Your task to perform on an android device: clear history in the chrome app Image 0: 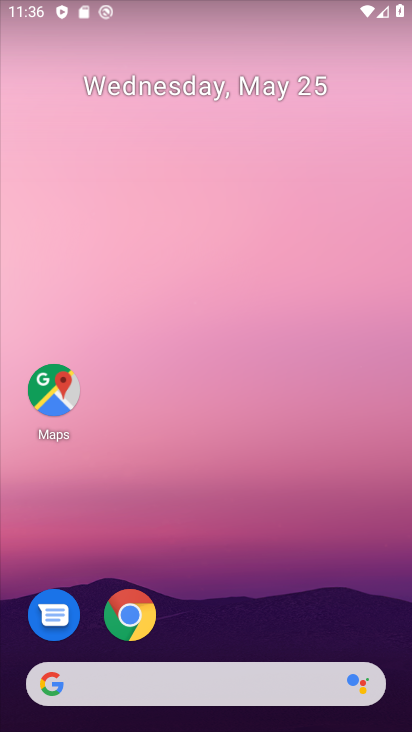
Step 0: drag from (340, 566) to (346, 45)
Your task to perform on an android device: clear history in the chrome app Image 1: 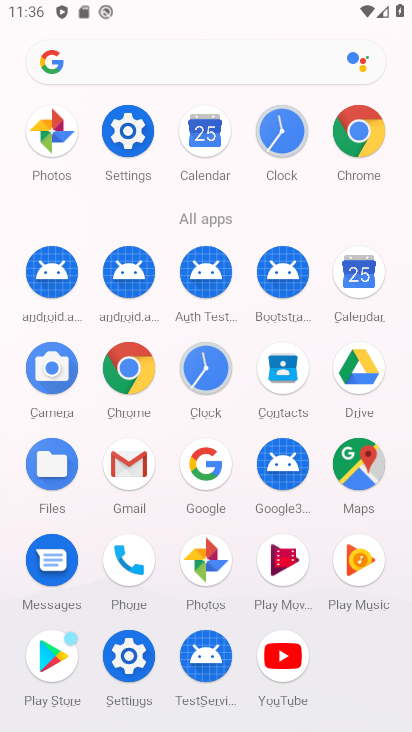
Step 1: click (364, 144)
Your task to perform on an android device: clear history in the chrome app Image 2: 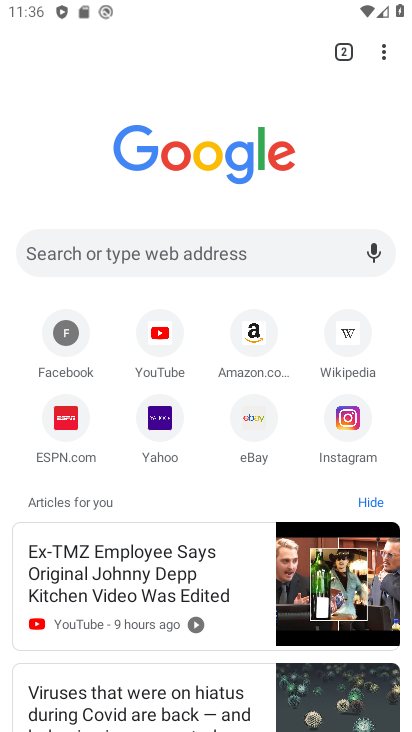
Step 2: click (379, 40)
Your task to perform on an android device: clear history in the chrome app Image 3: 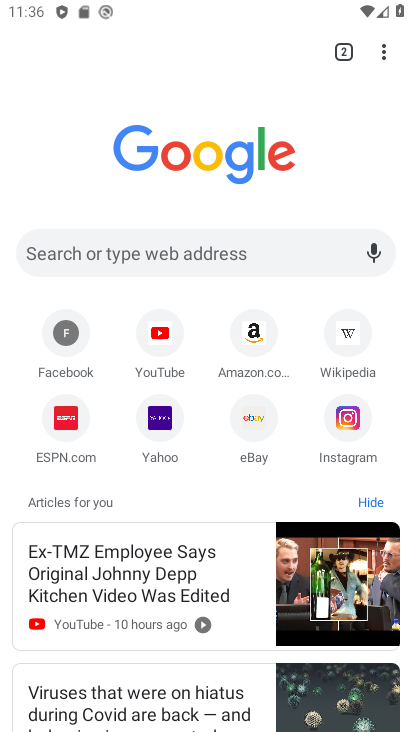
Step 3: click (390, 42)
Your task to perform on an android device: clear history in the chrome app Image 4: 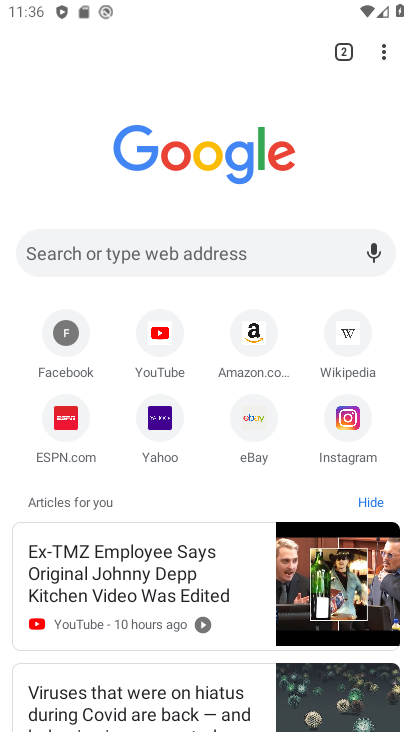
Step 4: click (386, 48)
Your task to perform on an android device: clear history in the chrome app Image 5: 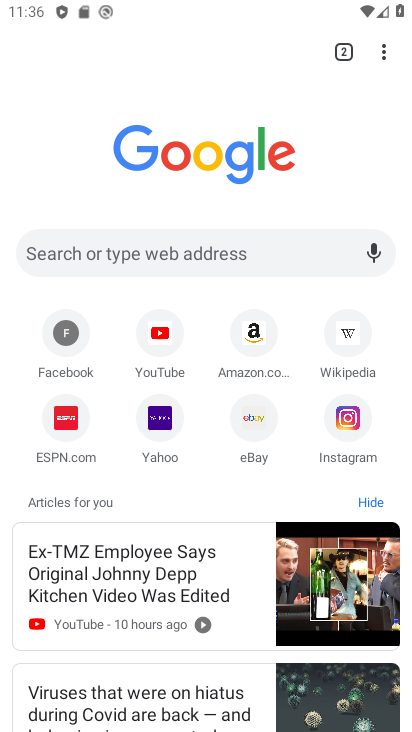
Step 5: click (386, 48)
Your task to perform on an android device: clear history in the chrome app Image 6: 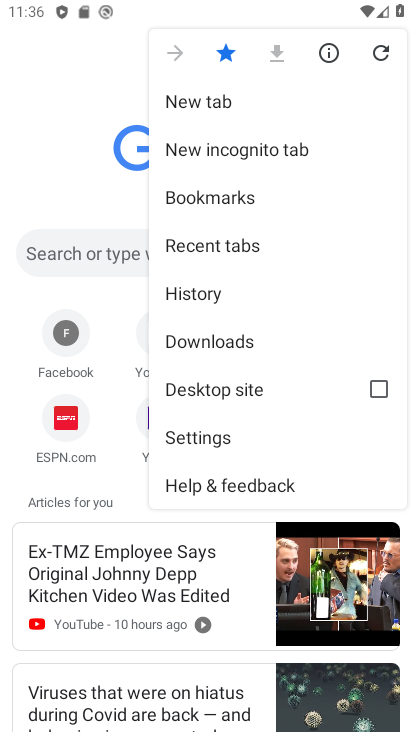
Step 6: click (209, 291)
Your task to perform on an android device: clear history in the chrome app Image 7: 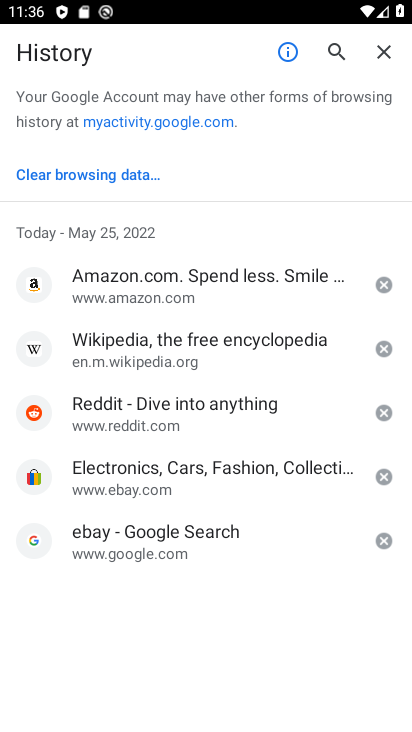
Step 7: click (86, 169)
Your task to perform on an android device: clear history in the chrome app Image 8: 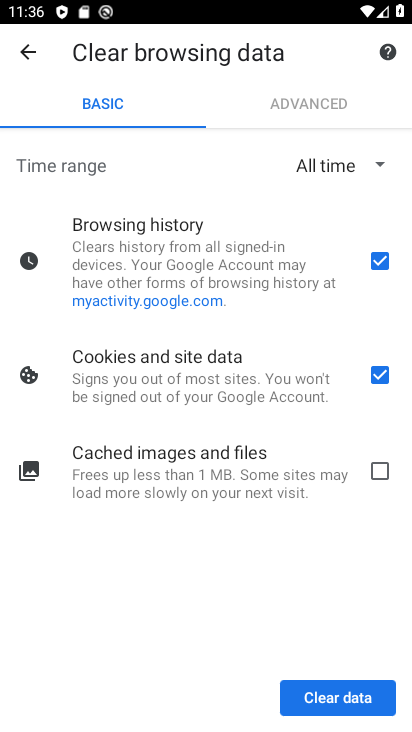
Step 8: click (368, 701)
Your task to perform on an android device: clear history in the chrome app Image 9: 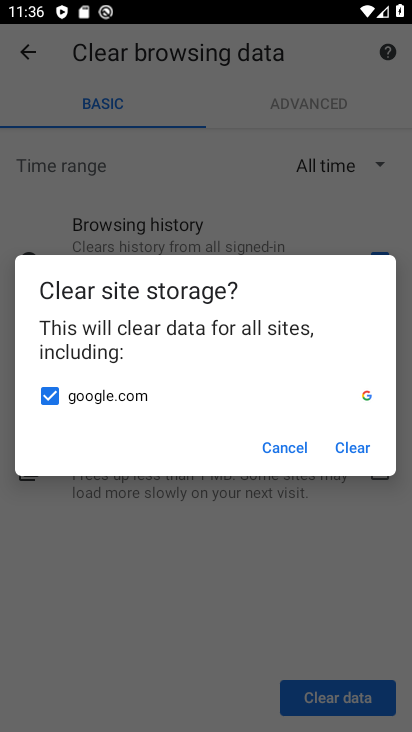
Step 9: click (380, 456)
Your task to perform on an android device: clear history in the chrome app Image 10: 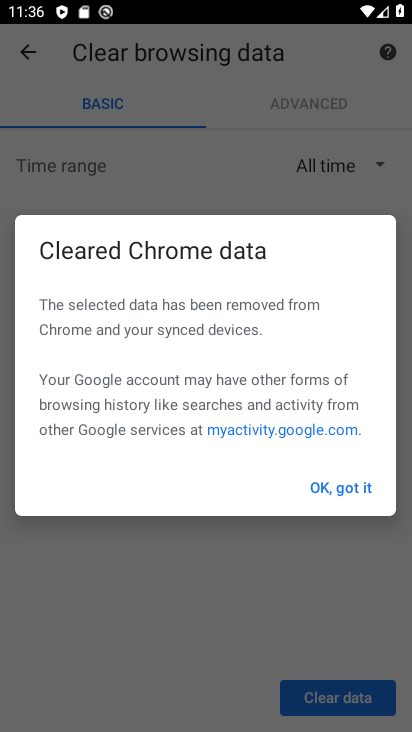
Step 10: click (346, 481)
Your task to perform on an android device: clear history in the chrome app Image 11: 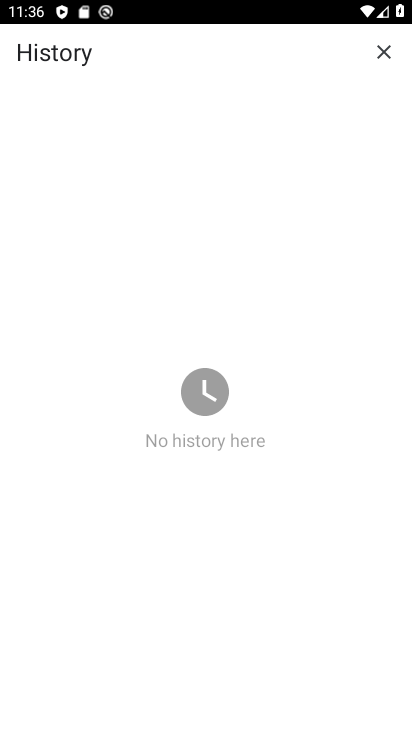
Step 11: task complete